Your task to perform on an android device: Toggle the flashlight Image 0: 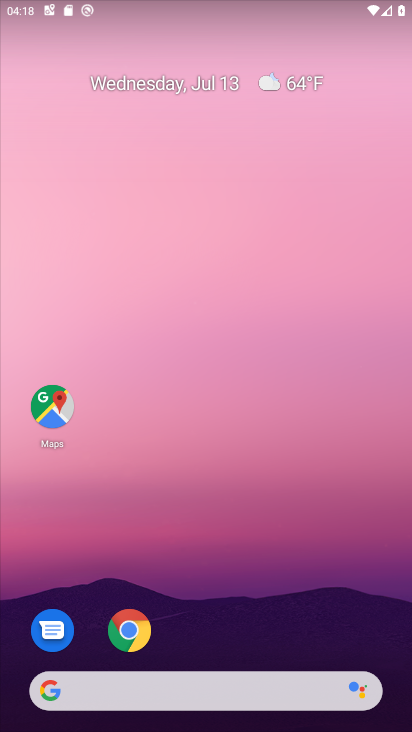
Step 0: drag from (195, 653) to (190, 191)
Your task to perform on an android device: Toggle the flashlight Image 1: 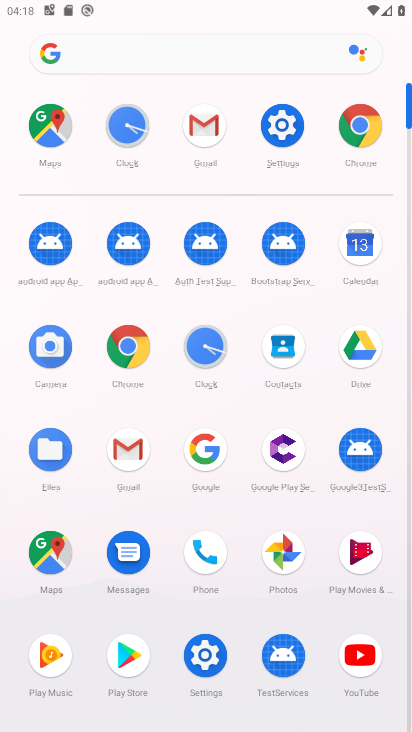
Step 1: click (263, 114)
Your task to perform on an android device: Toggle the flashlight Image 2: 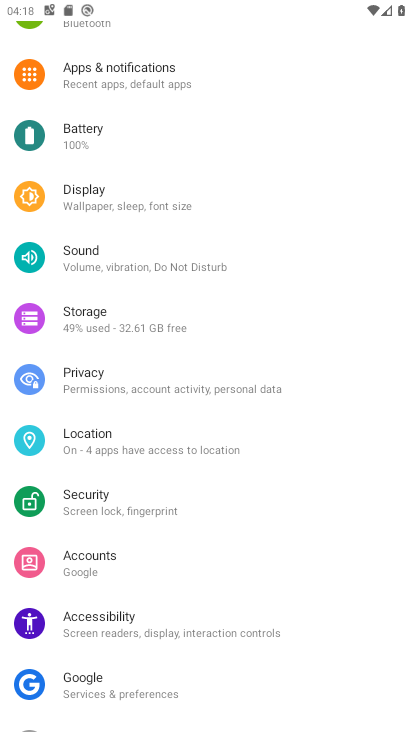
Step 2: task complete